Your task to perform on an android device: turn on translation in the chrome app Image 0: 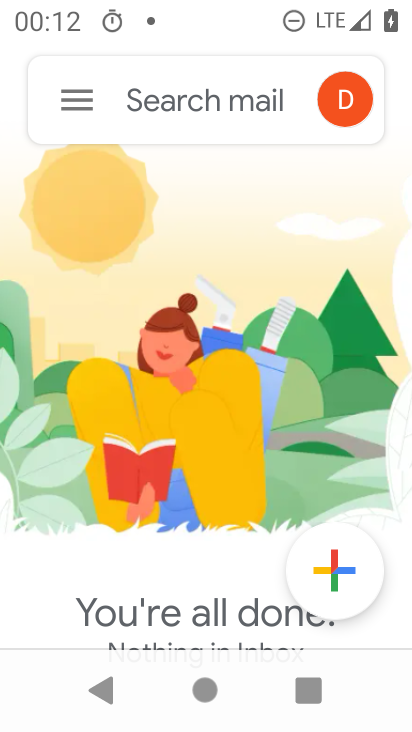
Step 0: press home button
Your task to perform on an android device: turn on translation in the chrome app Image 1: 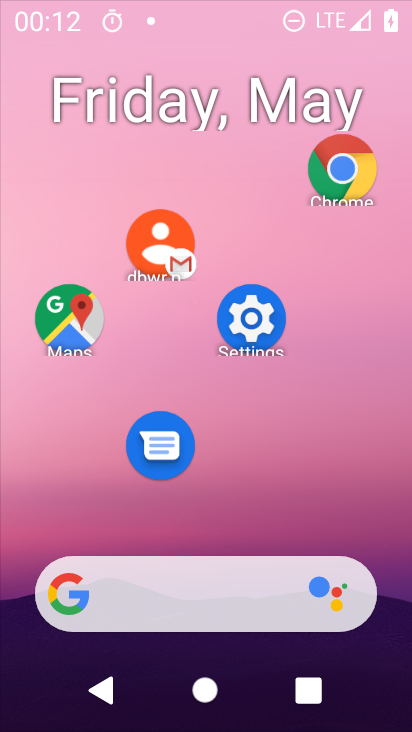
Step 1: drag from (165, 589) to (263, 334)
Your task to perform on an android device: turn on translation in the chrome app Image 2: 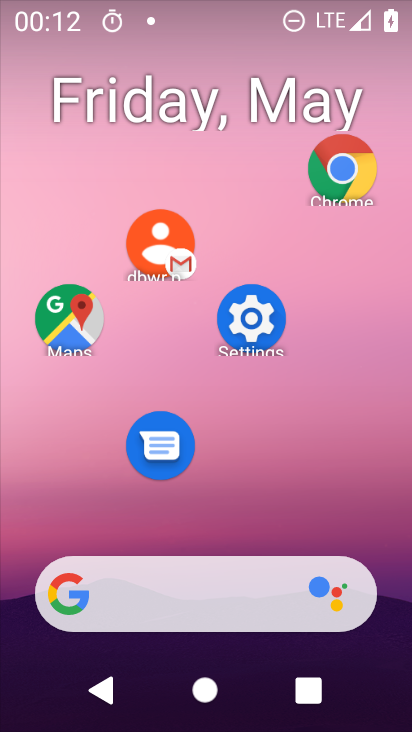
Step 2: press home button
Your task to perform on an android device: turn on translation in the chrome app Image 3: 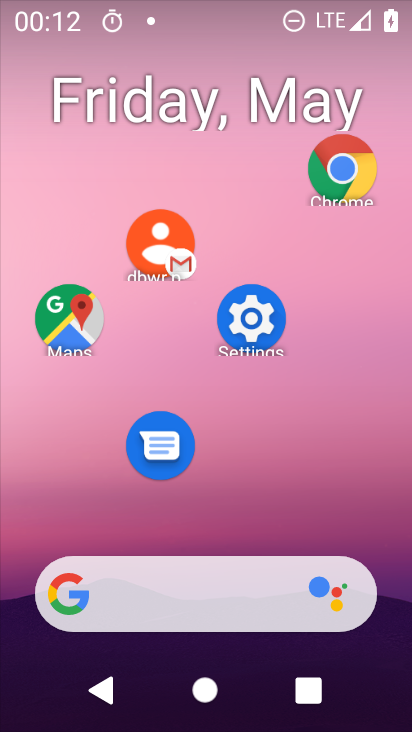
Step 3: click (331, 165)
Your task to perform on an android device: turn on translation in the chrome app Image 4: 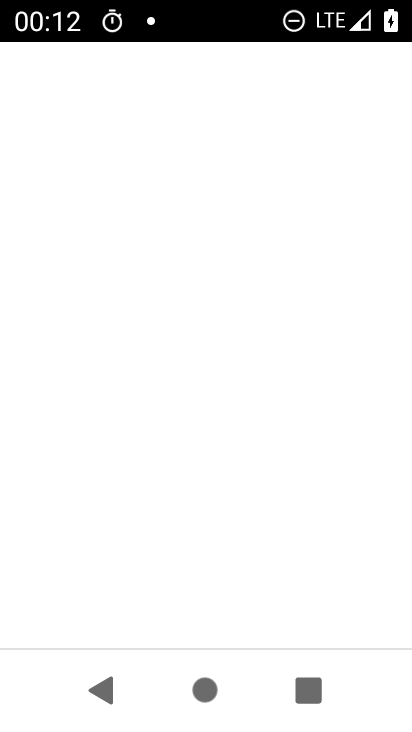
Step 4: click (337, 165)
Your task to perform on an android device: turn on translation in the chrome app Image 5: 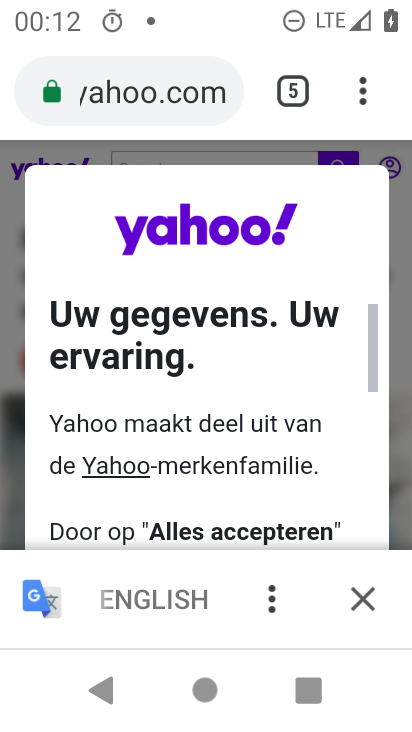
Step 5: click (363, 82)
Your task to perform on an android device: turn on translation in the chrome app Image 6: 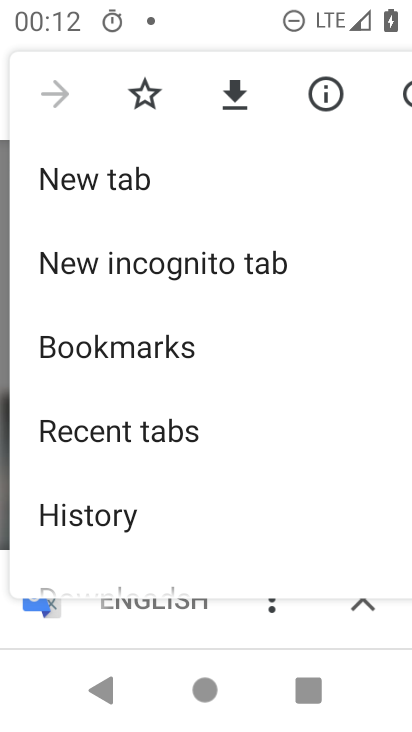
Step 6: drag from (100, 527) to (169, 120)
Your task to perform on an android device: turn on translation in the chrome app Image 7: 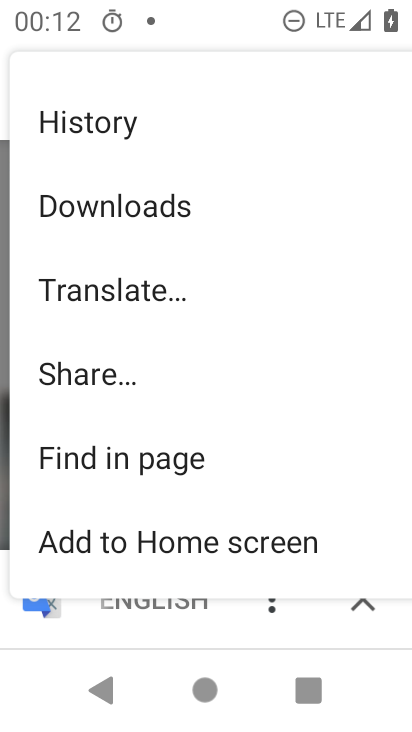
Step 7: drag from (153, 506) to (213, 139)
Your task to perform on an android device: turn on translation in the chrome app Image 8: 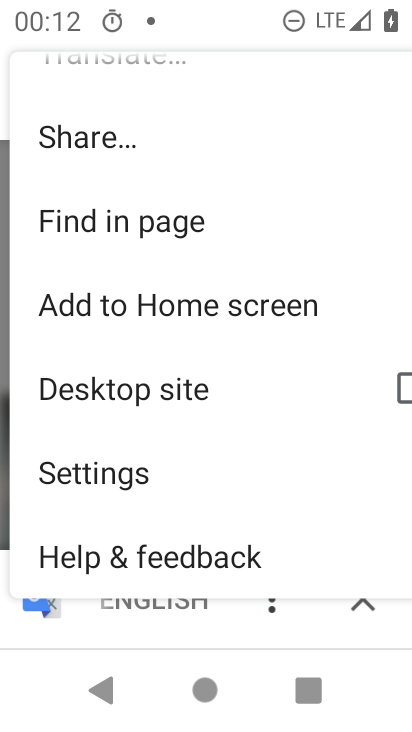
Step 8: click (122, 475)
Your task to perform on an android device: turn on translation in the chrome app Image 9: 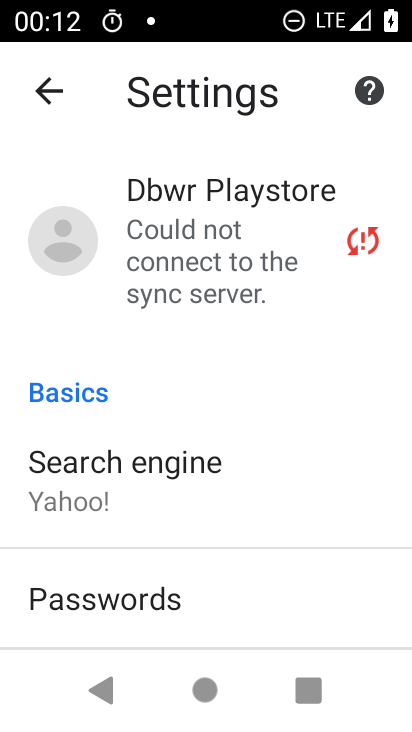
Step 9: drag from (183, 518) to (192, 208)
Your task to perform on an android device: turn on translation in the chrome app Image 10: 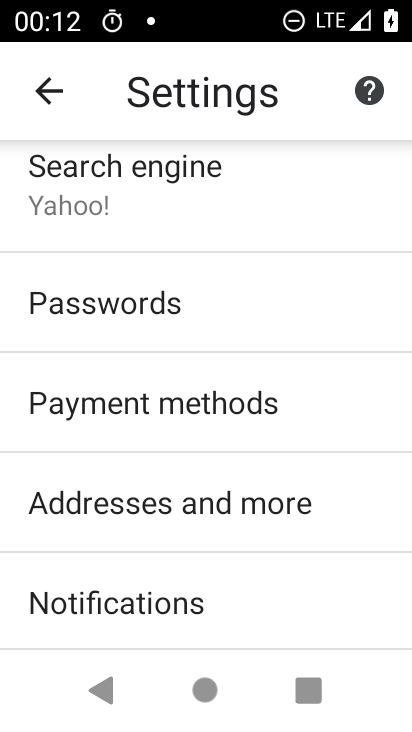
Step 10: drag from (150, 605) to (155, 281)
Your task to perform on an android device: turn on translation in the chrome app Image 11: 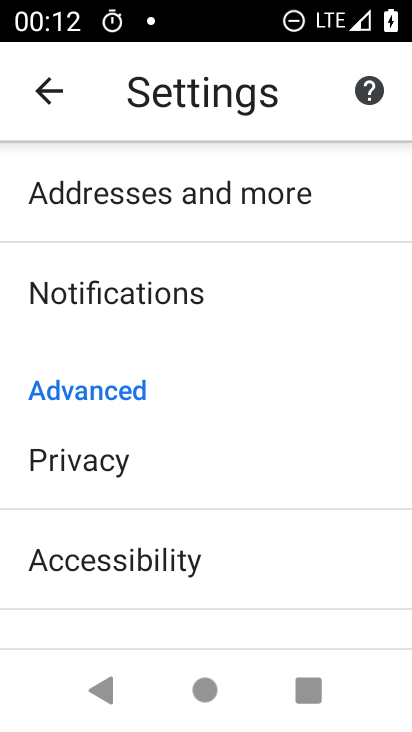
Step 11: drag from (125, 592) to (168, 242)
Your task to perform on an android device: turn on translation in the chrome app Image 12: 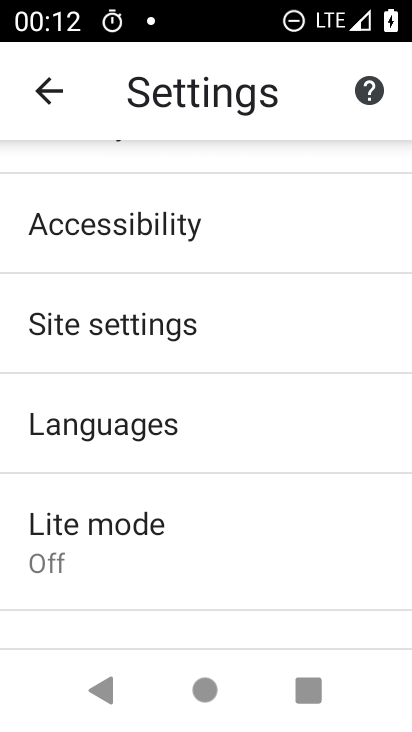
Step 12: drag from (143, 596) to (181, 349)
Your task to perform on an android device: turn on translation in the chrome app Image 13: 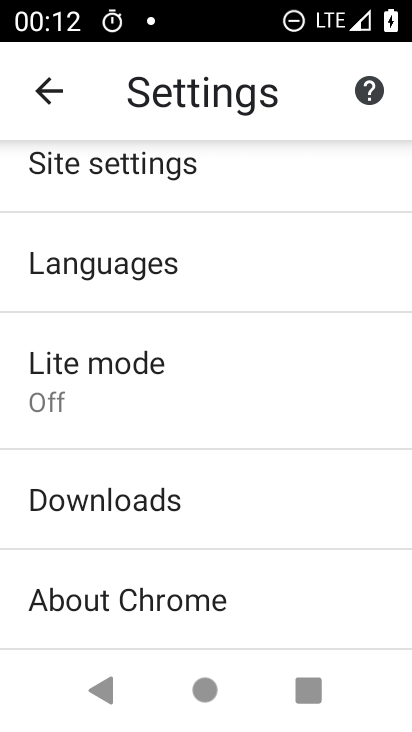
Step 13: click (177, 252)
Your task to perform on an android device: turn on translation in the chrome app Image 14: 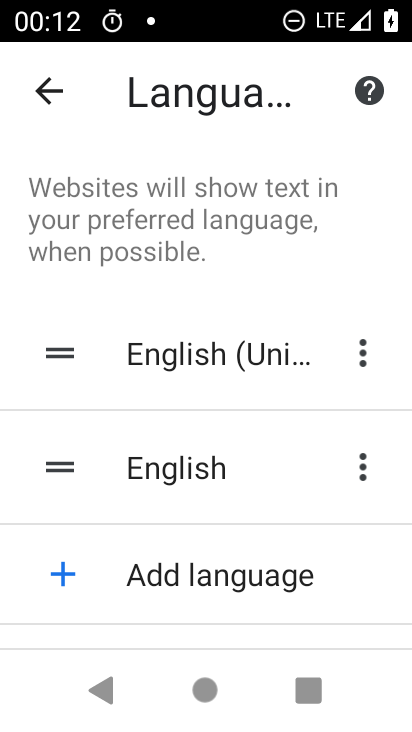
Step 14: task complete